Your task to perform on an android device: What's the weather going to be this weekend? Image 0: 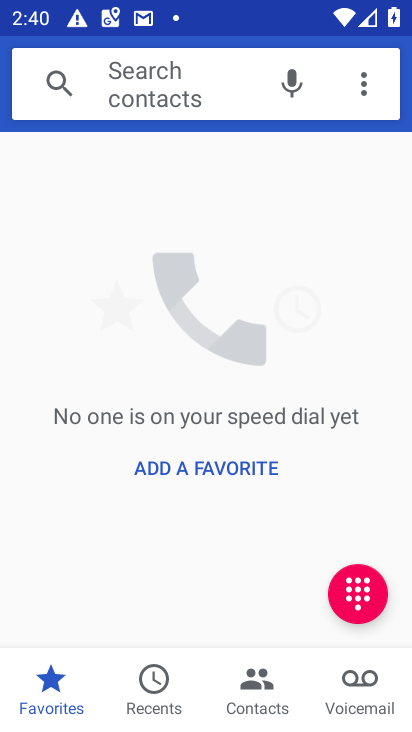
Step 0: press home button
Your task to perform on an android device: What's the weather going to be this weekend? Image 1: 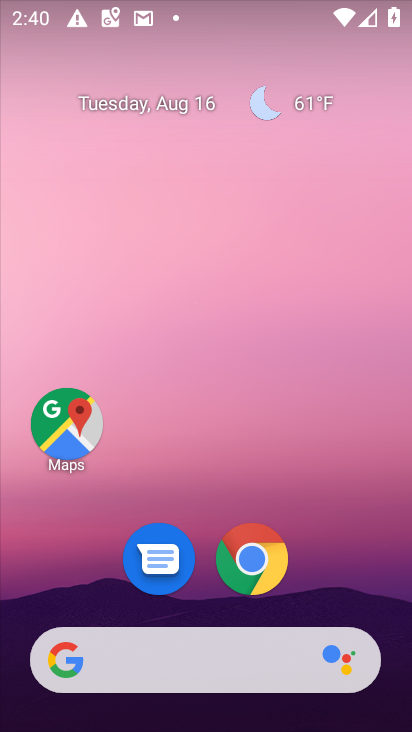
Step 1: click (299, 105)
Your task to perform on an android device: What's the weather going to be this weekend? Image 2: 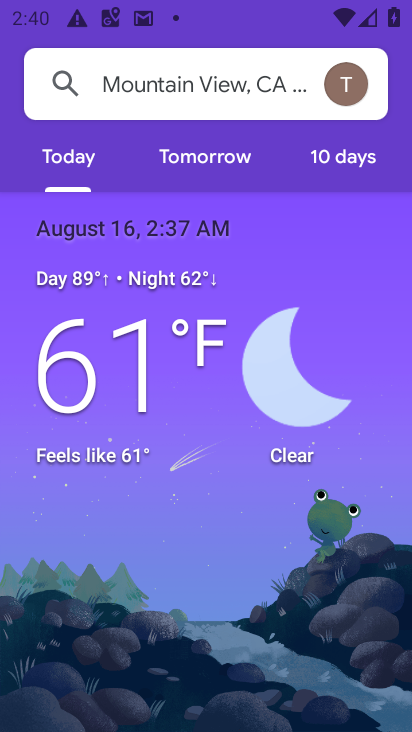
Step 2: click (338, 164)
Your task to perform on an android device: What's the weather going to be this weekend? Image 3: 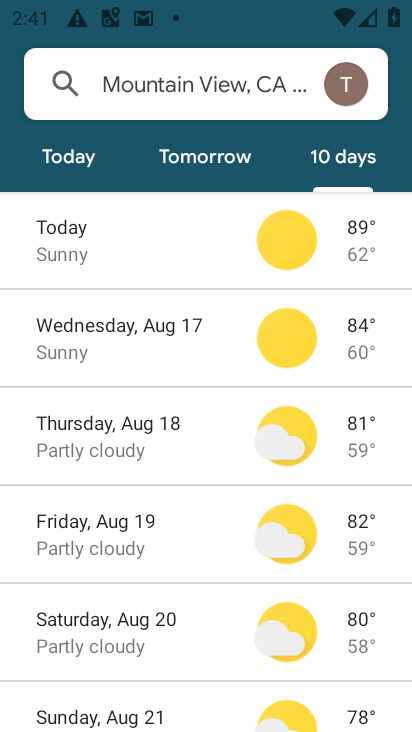
Step 3: task complete